Your task to perform on an android device: Open Youtube and go to "Your channel" Image 0: 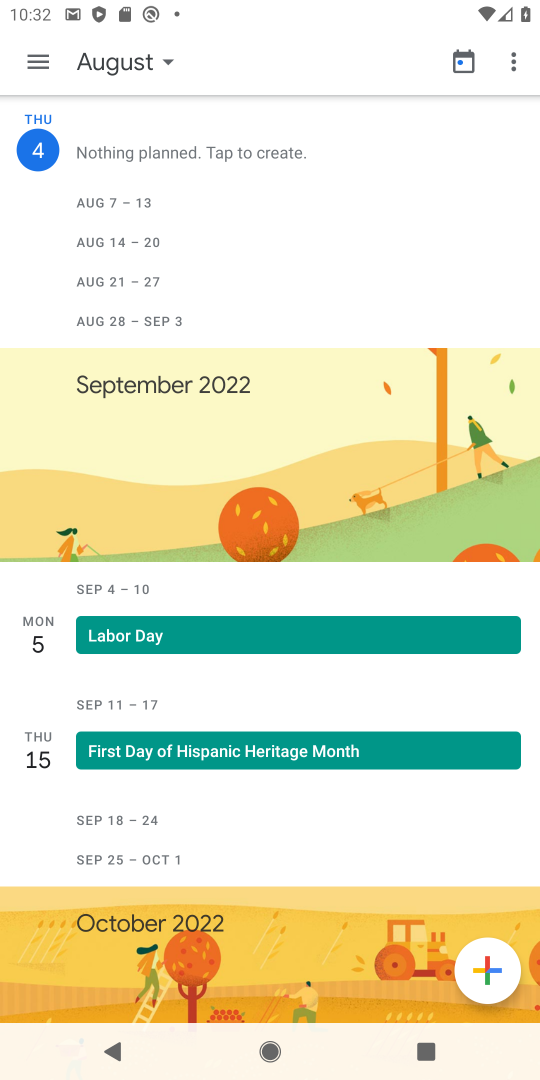
Step 0: press home button
Your task to perform on an android device: Open Youtube and go to "Your channel" Image 1: 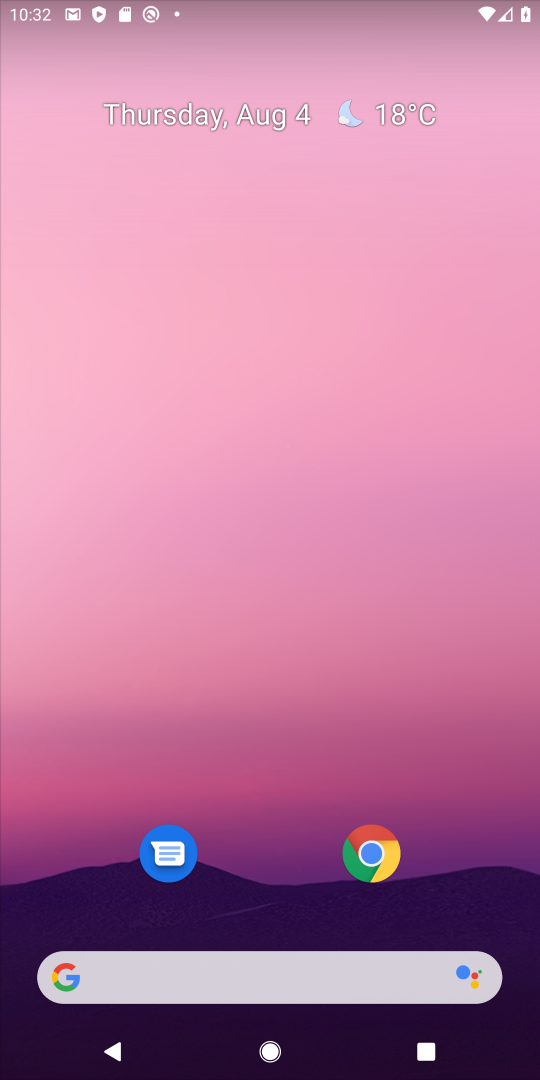
Step 1: drag from (273, 896) to (218, 56)
Your task to perform on an android device: Open Youtube and go to "Your channel" Image 2: 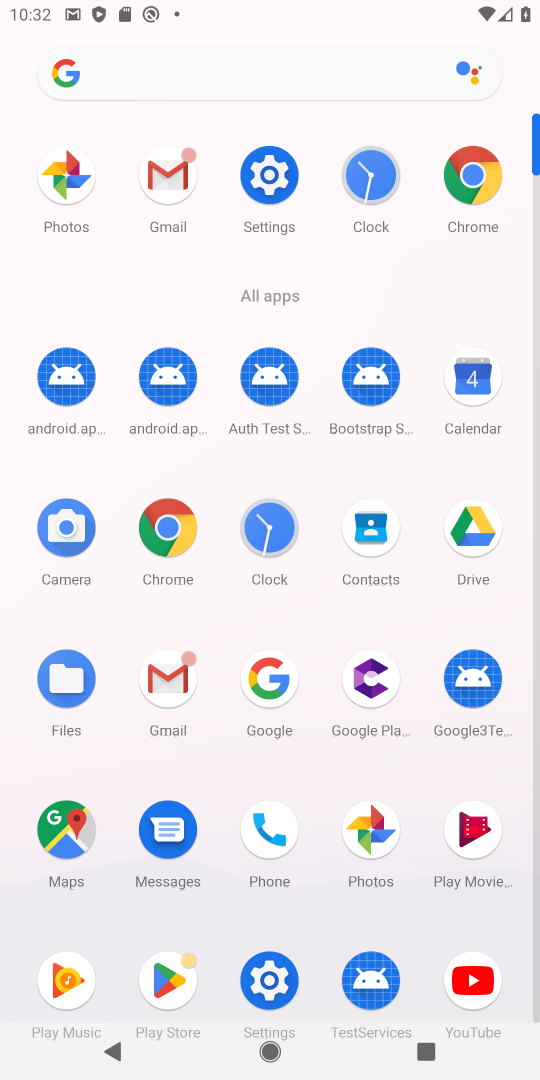
Step 2: click (468, 982)
Your task to perform on an android device: Open Youtube and go to "Your channel" Image 3: 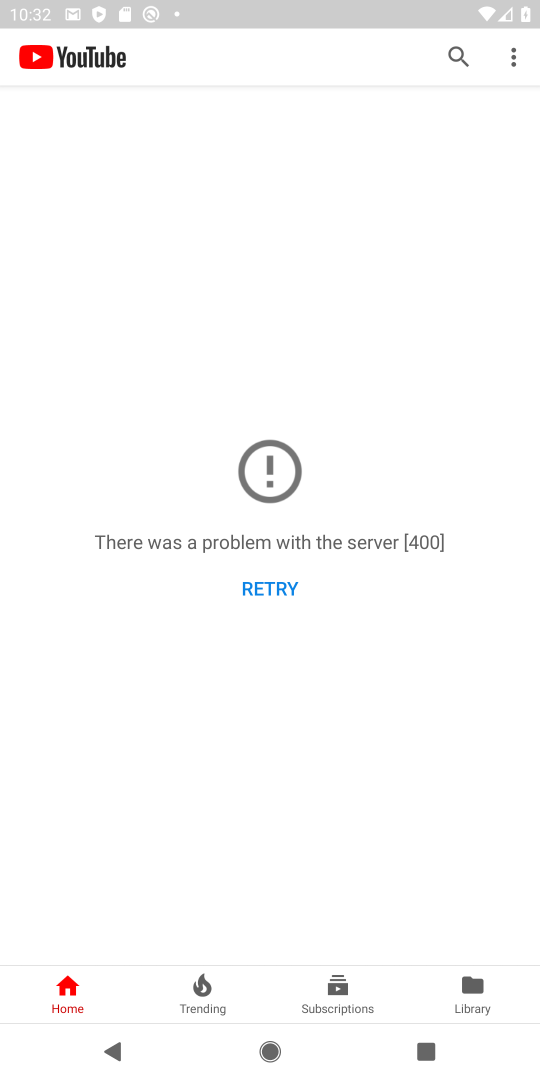
Step 3: click (287, 574)
Your task to perform on an android device: Open Youtube and go to "Your channel" Image 4: 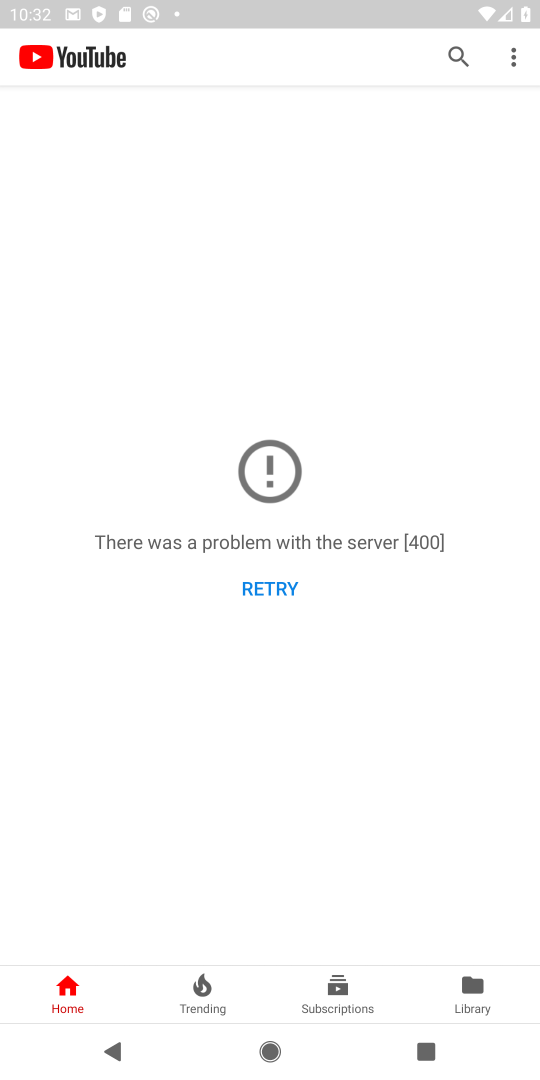
Step 4: task complete